Your task to perform on an android device: Open the calendar app, open the side menu, and click the "Day" option Image 0: 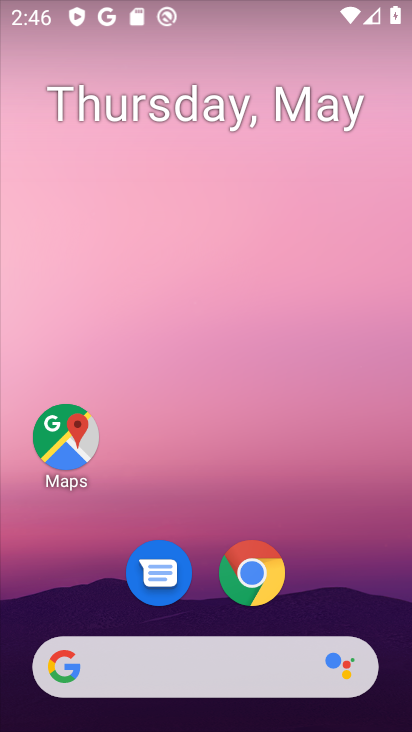
Step 0: drag from (82, 636) to (169, 187)
Your task to perform on an android device: Open the calendar app, open the side menu, and click the "Day" option Image 1: 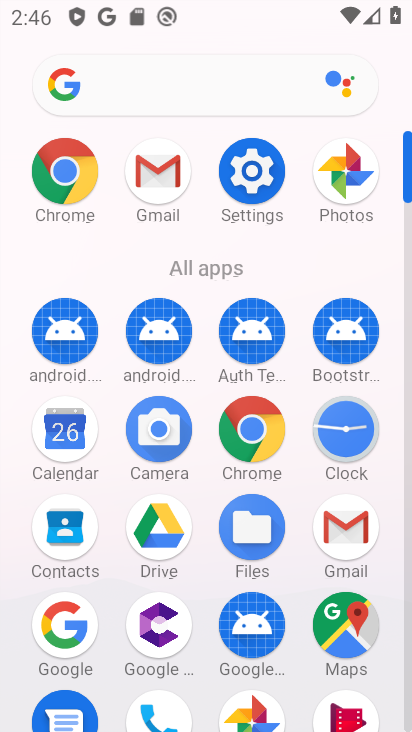
Step 1: click (74, 450)
Your task to perform on an android device: Open the calendar app, open the side menu, and click the "Day" option Image 2: 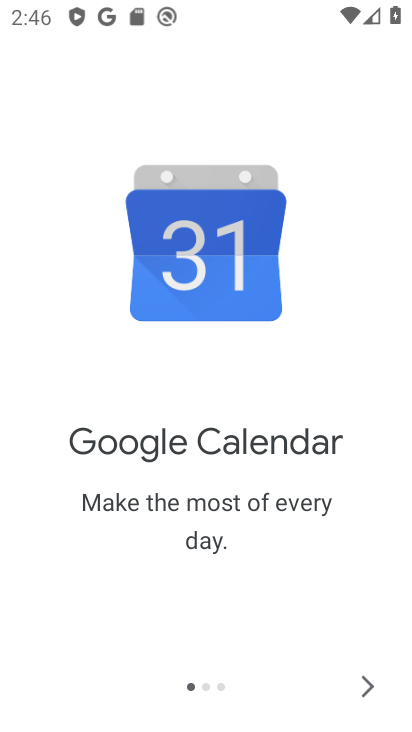
Step 2: click (373, 706)
Your task to perform on an android device: Open the calendar app, open the side menu, and click the "Day" option Image 3: 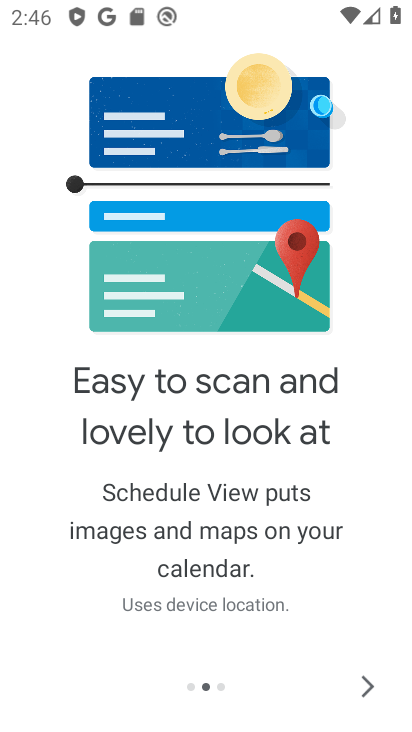
Step 3: click (373, 706)
Your task to perform on an android device: Open the calendar app, open the side menu, and click the "Day" option Image 4: 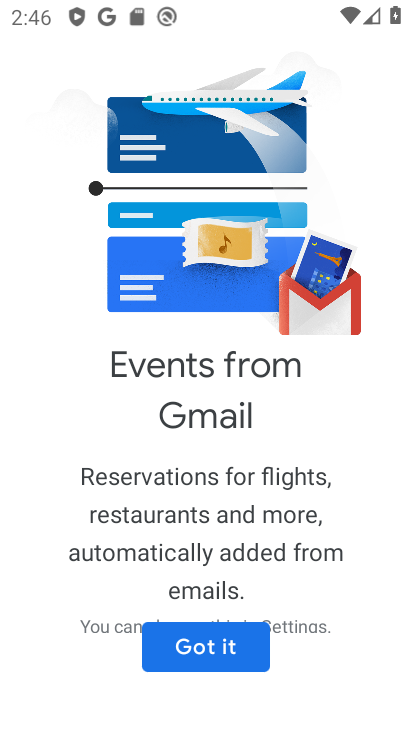
Step 4: click (185, 654)
Your task to perform on an android device: Open the calendar app, open the side menu, and click the "Day" option Image 5: 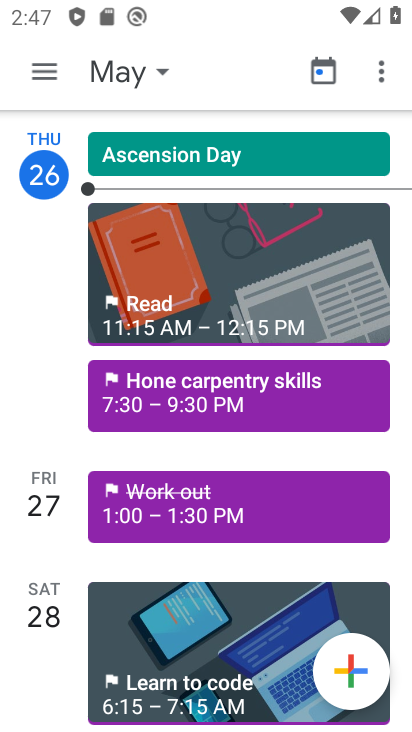
Step 5: click (56, 62)
Your task to perform on an android device: Open the calendar app, open the side menu, and click the "Day" option Image 6: 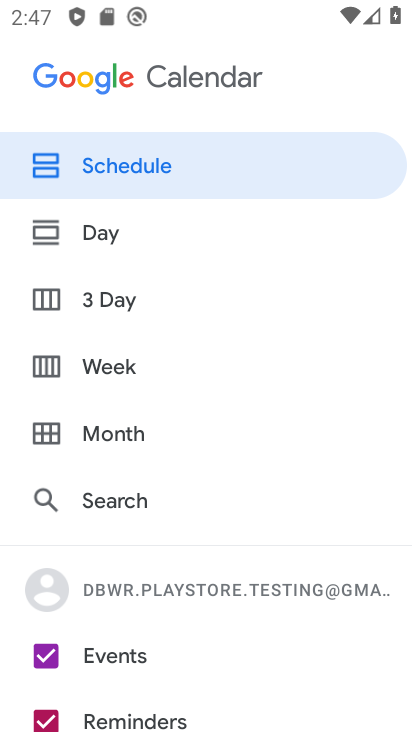
Step 6: click (198, 238)
Your task to perform on an android device: Open the calendar app, open the side menu, and click the "Day" option Image 7: 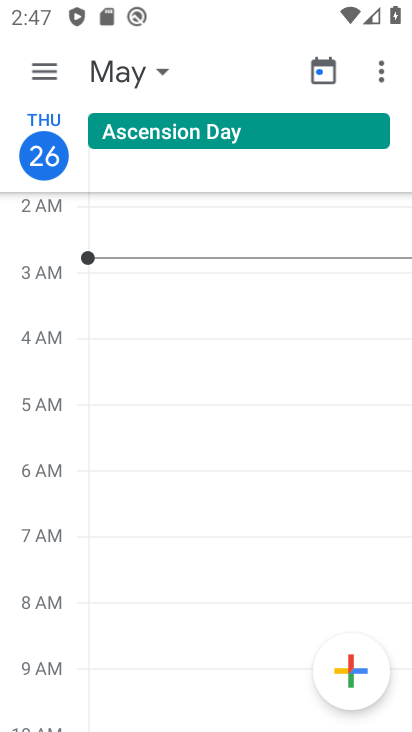
Step 7: task complete